Your task to perform on an android device: Go to internet settings Image 0: 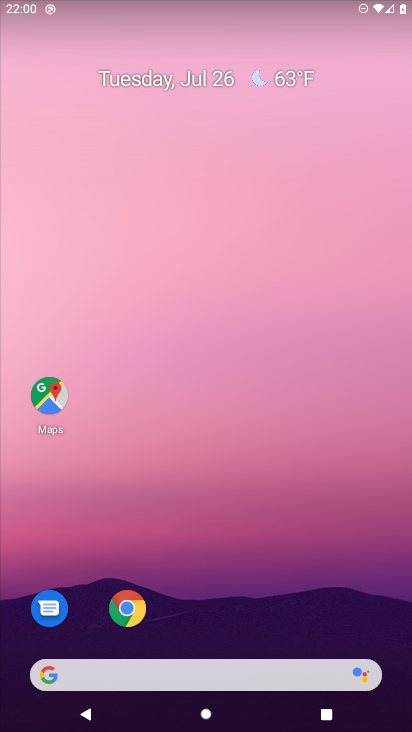
Step 0: drag from (38, 683) to (206, 92)
Your task to perform on an android device: Go to internet settings Image 1: 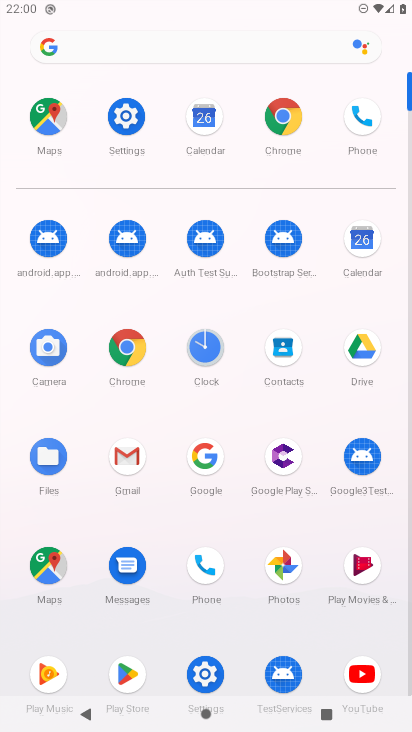
Step 1: click (199, 668)
Your task to perform on an android device: Go to internet settings Image 2: 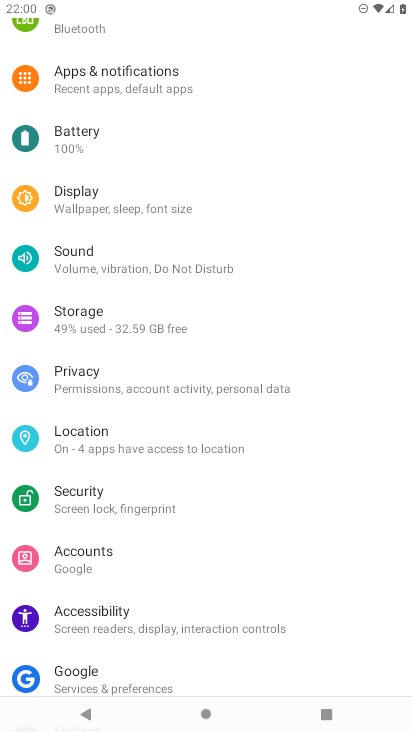
Step 2: drag from (264, 51) to (347, 586)
Your task to perform on an android device: Go to internet settings Image 3: 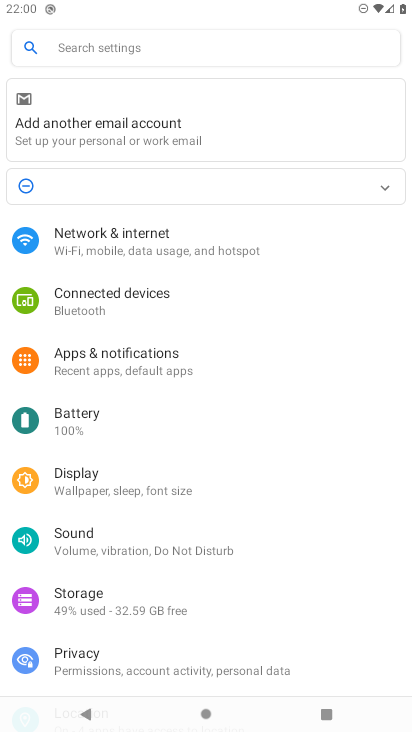
Step 3: click (125, 239)
Your task to perform on an android device: Go to internet settings Image 4: 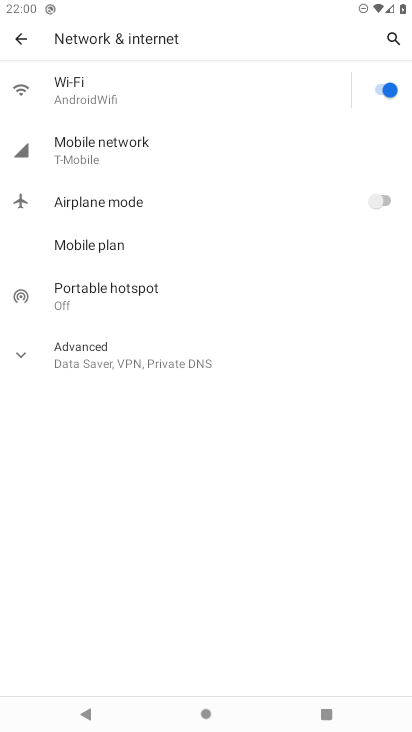
Step 4: task complete